Your task to perform on an android device: set the stopwatch Image 0: 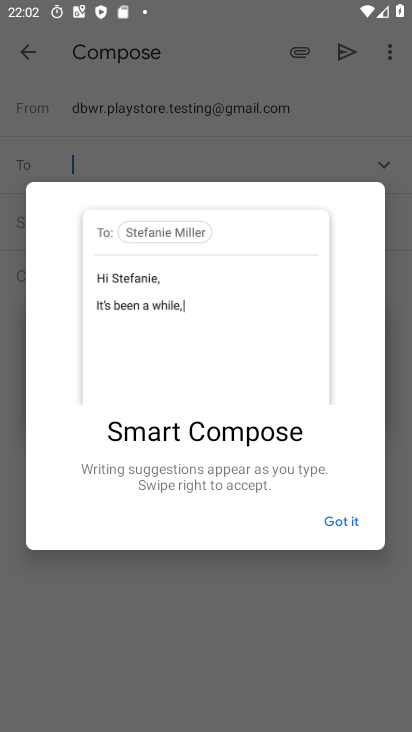
Step 0: press home button
Your task to perform on an android device: set the stopwatch Image 1: 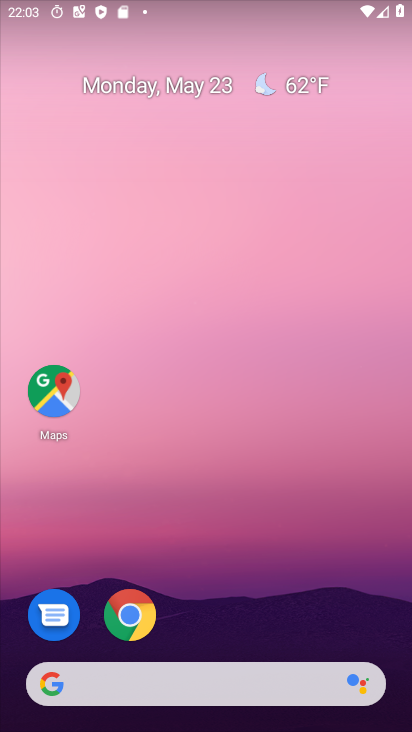
Step 1: drag from (259, 628) to (292, 166)
Your task to perform on an android device: set the stopwatch Image 2: 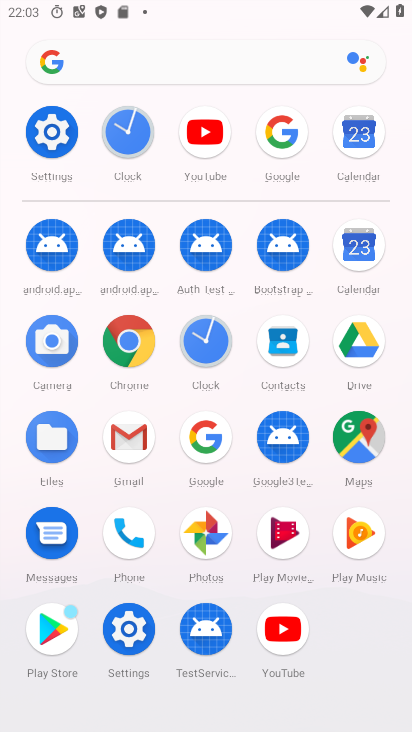
Step 2: click (204, 346)
Your task to perform on an android device: set the stopwatch Image 3: 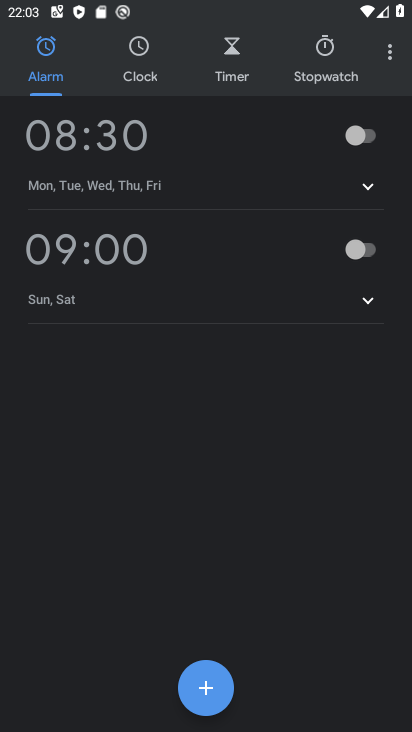
Step 3: click (341, 67)
Your task to perform on an android device: set the stopwatch Image 4: 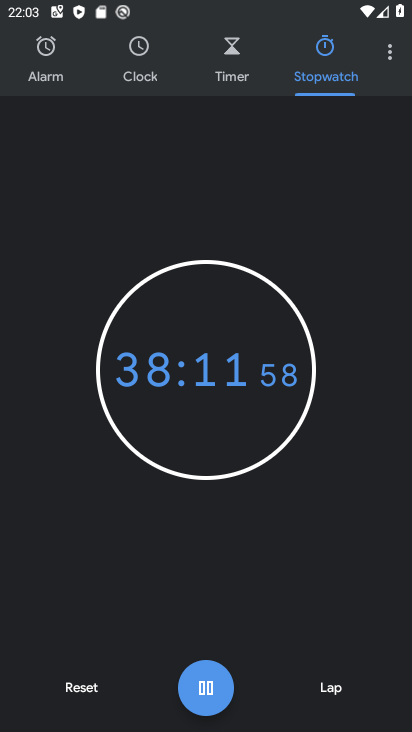
Step 4: click (86, 690)
Your task to perform on an android device: set the stopwatch Image 5: 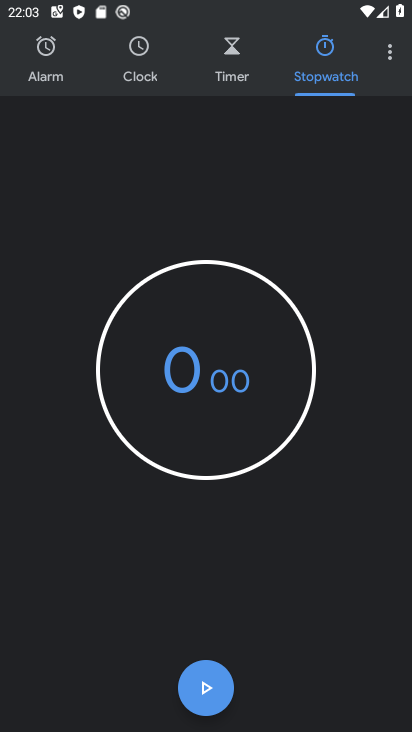
Step 5: click (201, 687)
Your task to perform on an android device: set the stopwatch Image 6: 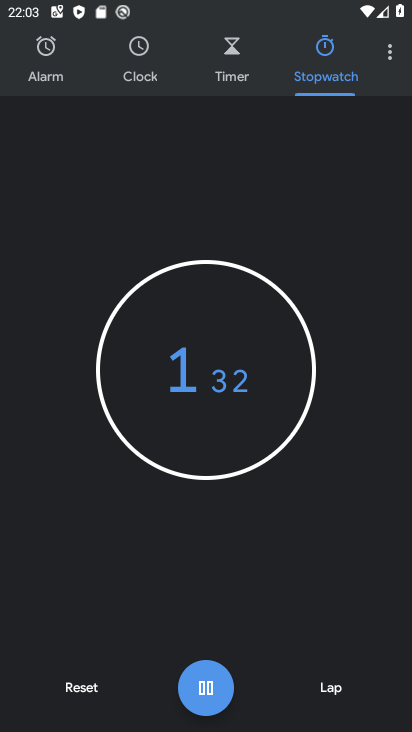
Step 6: click (201, 687)
Your task to perform on an android device: set the stopwatch Image 7: 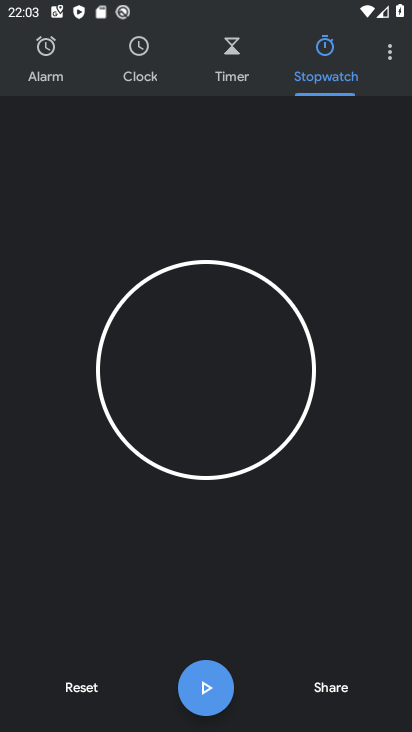
Step 7: task complete